Your task to perform on an android device: Open Android settings Image 0: 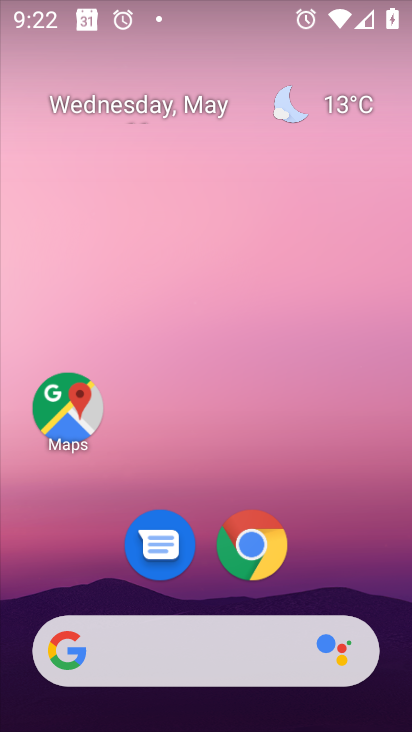
Step 0: drag from (342, 555) to (255, 75)
Your task to perform on an android device: Open Android settings Image 1: 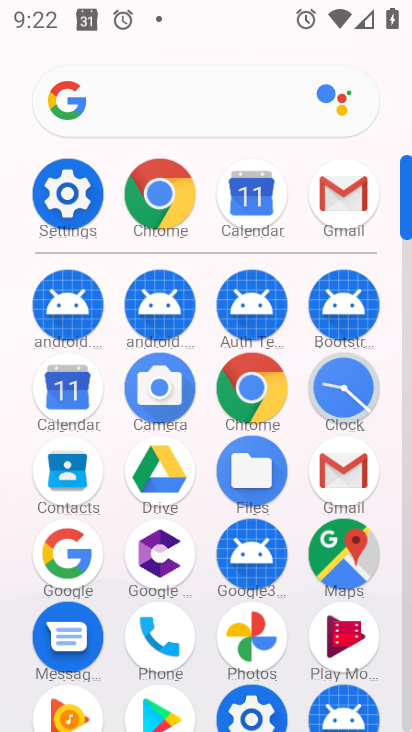
Step 1: drag from (7, 595) to (18, 296)
Your task to perform on an android device: Open Android settings Image 2: 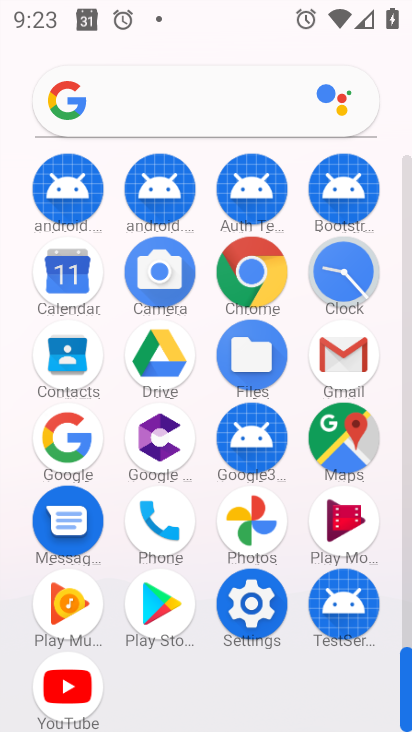
Step 2: click (255, 601)
Your task to perform on an android device: Open Android settings Image 3: 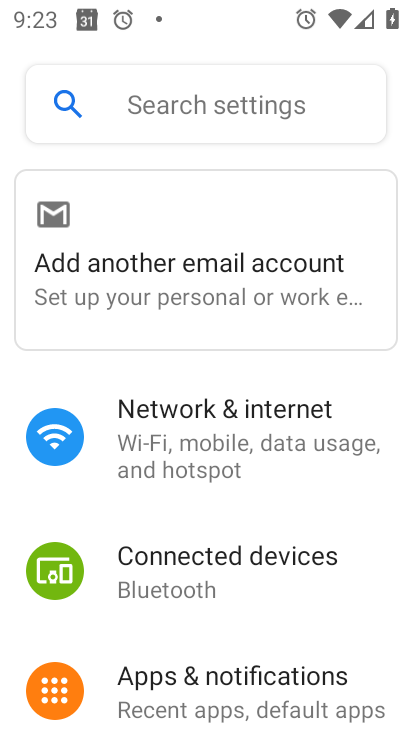
Step 3: task complete